Your task to perform on an android device: move a message to another label in the gmail app Image 0: 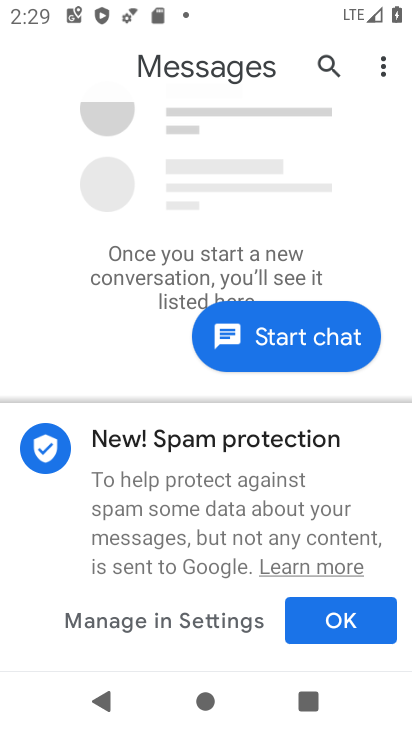
Step 0: press home button
Your task to perform on an android device: move a message to another label in the gmail app Image 1: 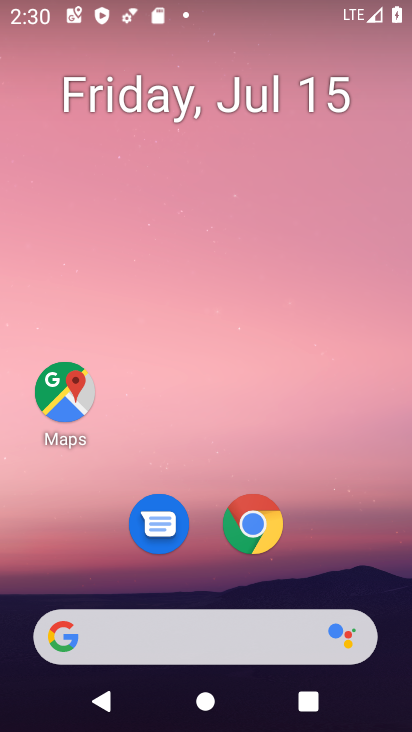
Step 1: drag from (181, 643) to (241, 145)
Your task to perform on an android device: move a message to another label in the gmail app Image 2: 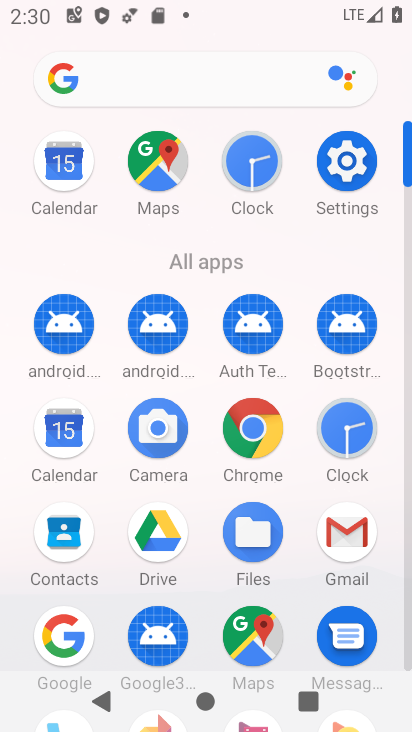
Step 2: click (342, 518)
Your task to perform on an android device: move a message to another label in the gmail app Image 3: 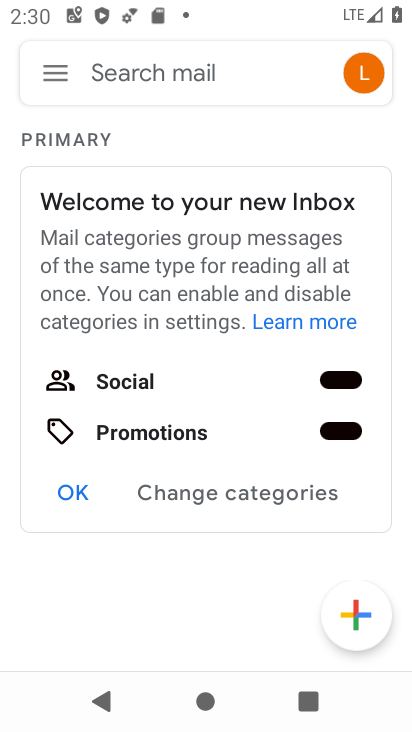
Step 3: click (66, 80)
Your task to perform on an android device: move a message to another label in the gmail app Image 4: 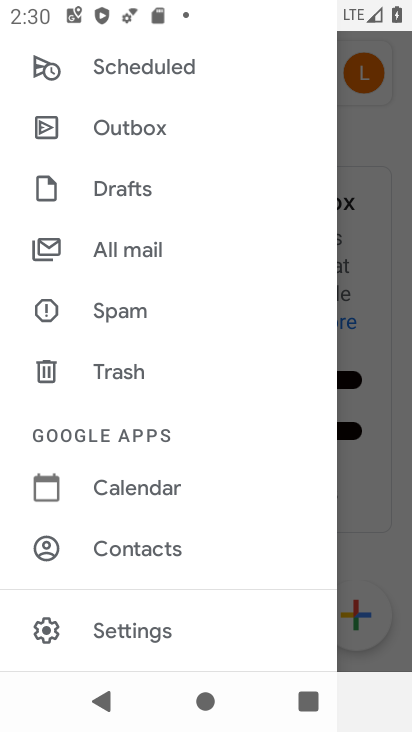
Step 4: click (127, 252)
Your task to perform on an android device: move a message to another label in the gmail app Image 5: 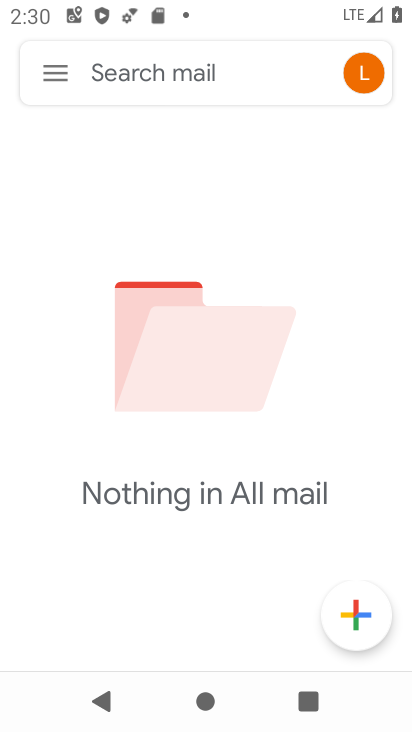
Step 5: task complete